Your task to perform on an android device: turn off notifications settings in the gmail app Image 0: 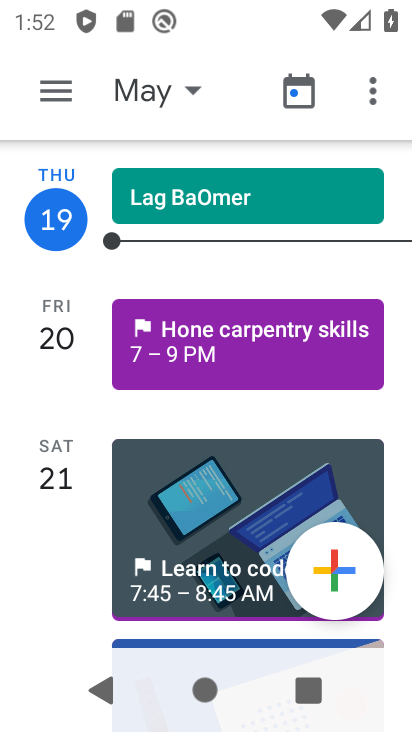
Step 0: press home button
Your task to perform on an android device: turn off notifications settings in the gmail app Image 1: 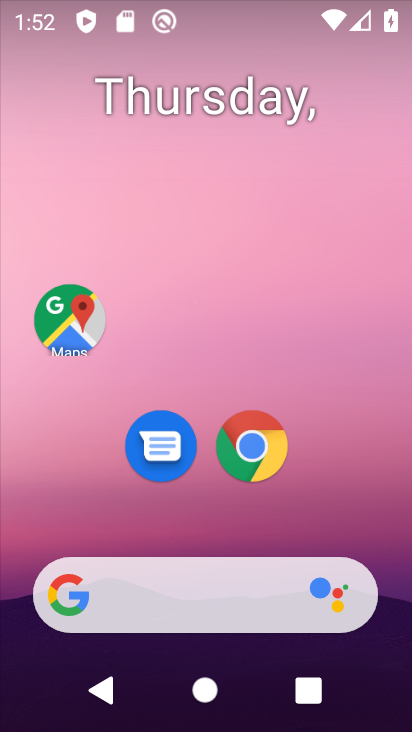
Step 1: drag from (322, 465) to (331, 312)
Your task to perform on an android device: turn off notifications settings in the gmail app Image 2: 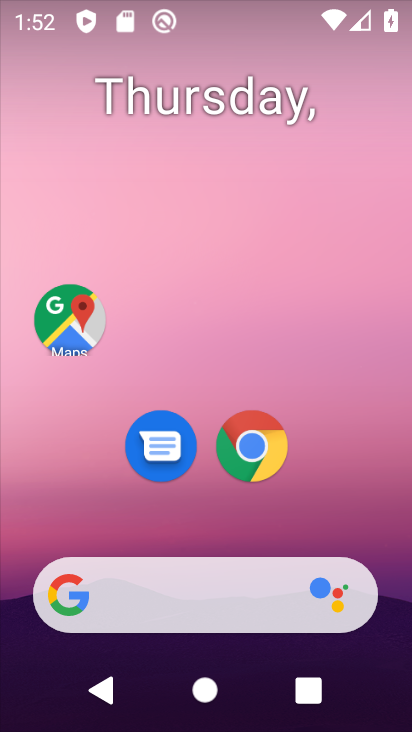
Step 2: drag from (251, 530) to (239, 181)
Your task to perform on an android device: turn off notifications settings in the gmail app Image 3: 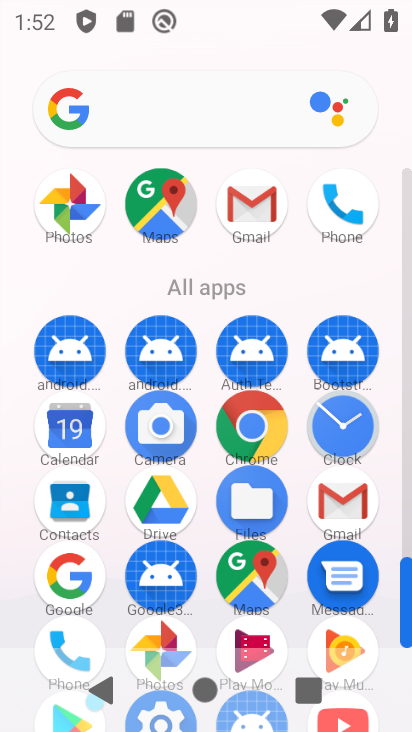
Step 3: click (336, 498)
Your task to perform on an android device: turn off notifications settings in the gmail app Image 4: 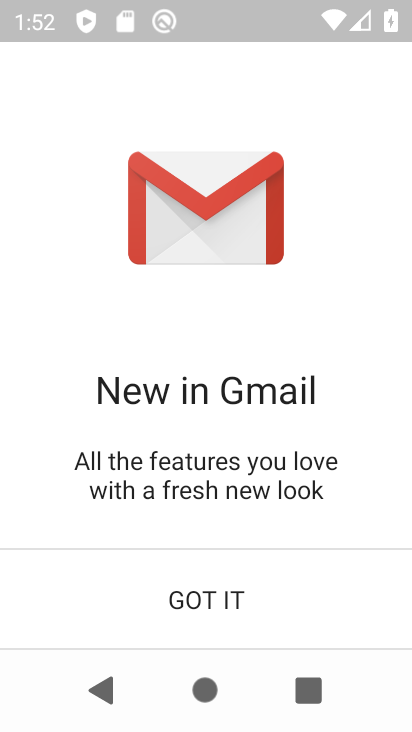
Step 4: click (206, 580)
Your task to perform on an android device: turn off notifications settings in the gmail app Image 5: 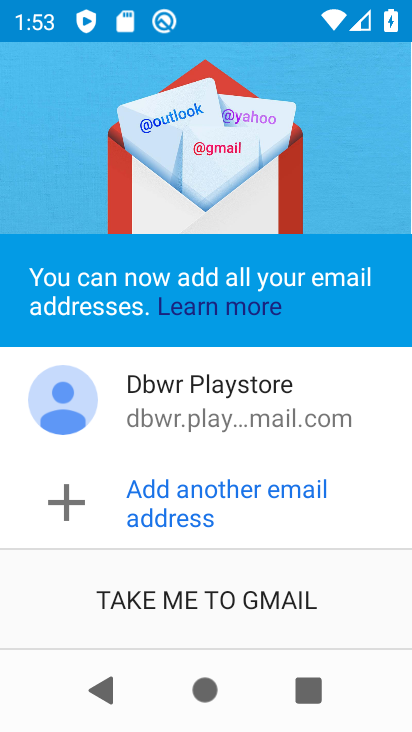
Step 5: click (190, 583)
Your task to perform on an android device: turn off notifications settings in the gmail app Image 6: 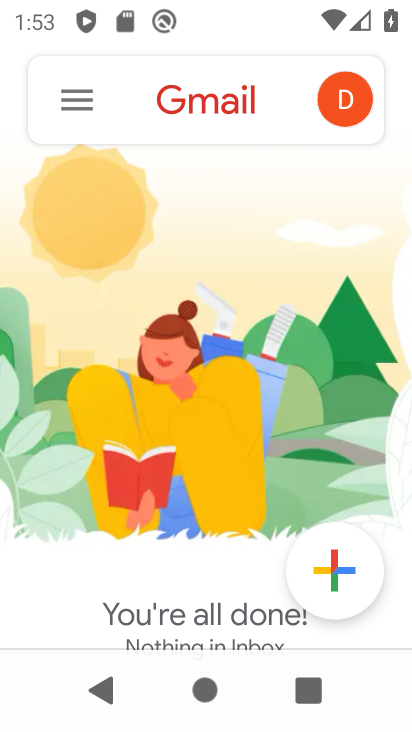
Step 6: click (65, 101)
Your task to perform on an android device: turn off notifications settings in the gmail app Image 7: 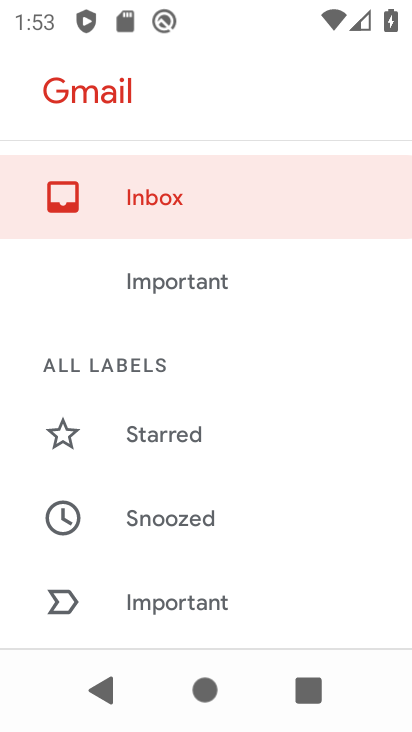
Step 7: drag from (211, 580) to (254, 154)
Your task to perform on an android device: turn off notifications settings in the gmail app Image 8: 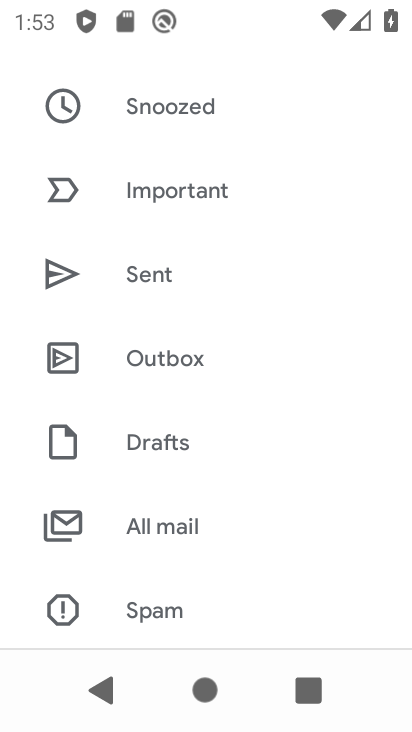
Step 8: drag from (187, 582) to (276, 267)
Your task to perform on an android device: turn off notifications settings in the gmail app Image 9: 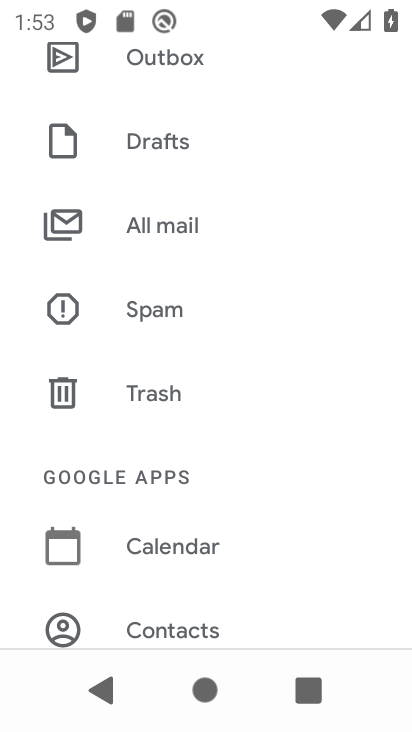
Step 9: drag from (219, 534) to (282, 305)
Your task to perform on an android device: turn off notifications settings in the gmail app Image 10: 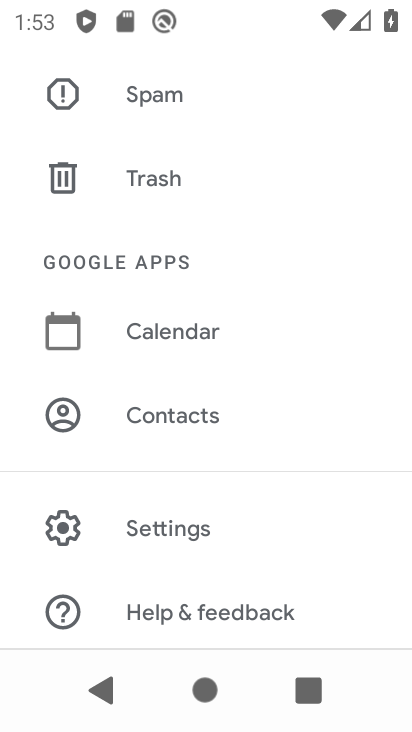
Step 10: click (177, 552)
Your task to perform on an android device: turn off notifications settings in the gmail app Image 11: 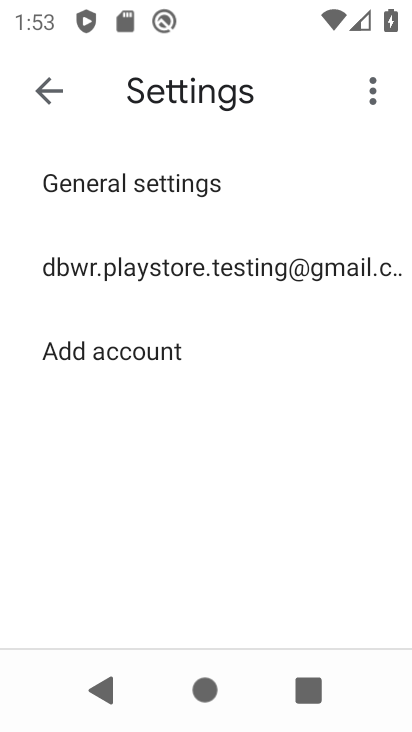
Step 11: click (108, 268)
Your task to perform on an android device: turn off notifications settings in the gmail app Image 12: 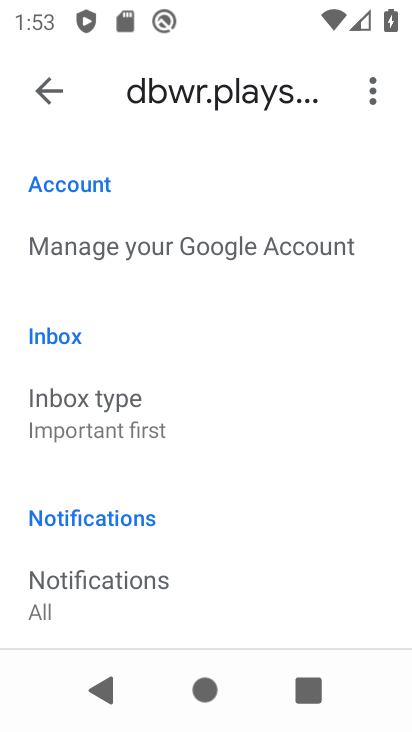
Step 12: click (96, 594)
Your task to perform on an android device: turn off notifications settings in the gmail app Image 13: 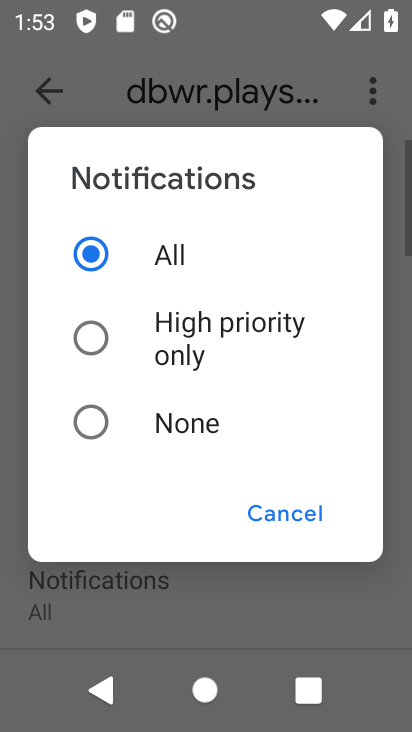
Step 13: click (82, 421)
Your task to perform on an android device: turn off notifications settings in the gmail app Image 14: 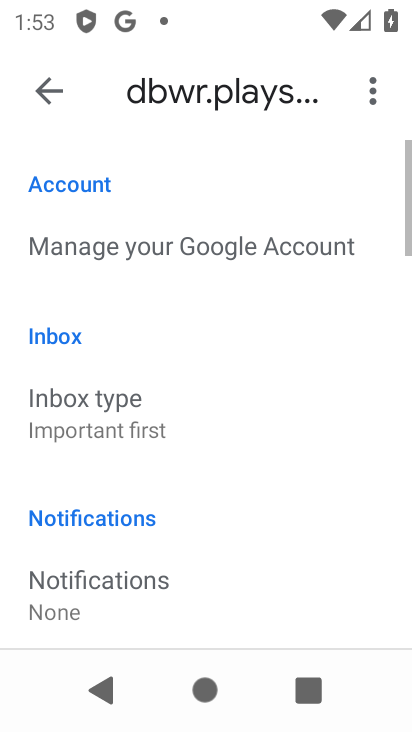
Step 14: task complete